Your task to perform on an android device: Show me popular videos on Youtube Image 0: 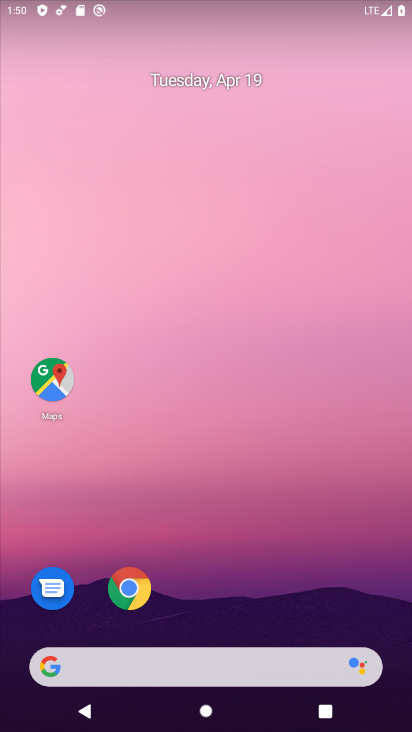
Step 0: drag from (272, 623) to (307, 92)
Your task to perform on an android device: Show me popular videos on Youtube Image 1: 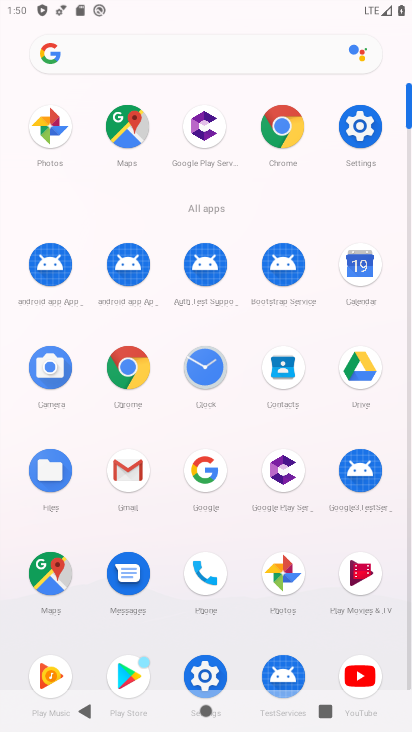
Step 1: drag from (343, 650) to (344, 449)
Your task to perform on an android device: Show me popular videos on Youtube Image 2: 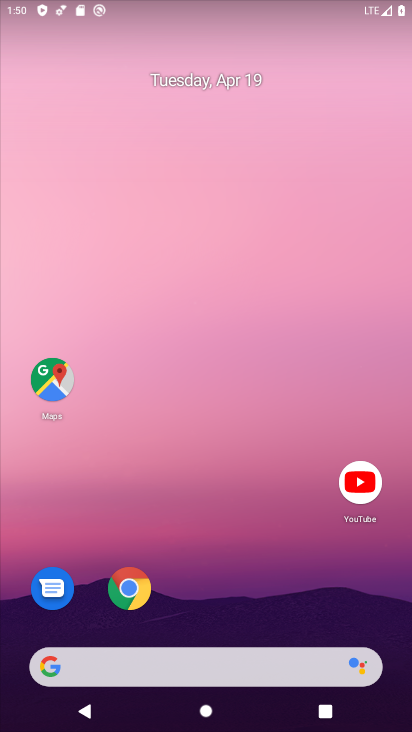
Step 2: click (354, 480)
Your task to perform on an android device: Show me popular videos on Youtube Image 3: 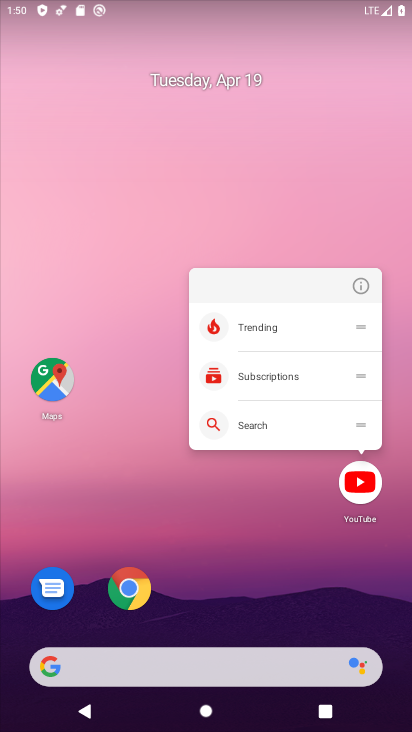
Step 3: click (366, 492)
Your task to perform on an android device: Show me popular videos on Youtube Image 4: 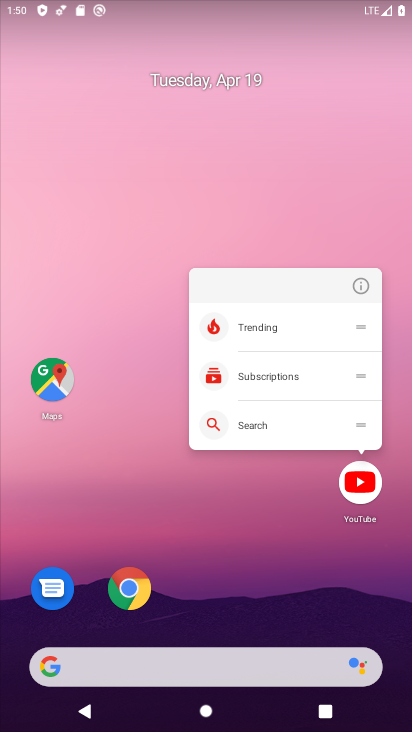
Step 4: click (366, 492)
Your task to perform on an android device: Show me popular videos on Youtube Image 5: 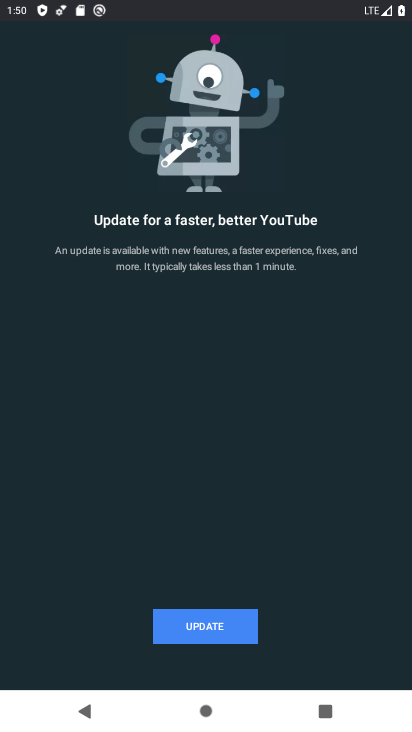
Step 5: click (192, 627)
Your task to perform on an android device: Show me popular videos on Youtube Image 6: 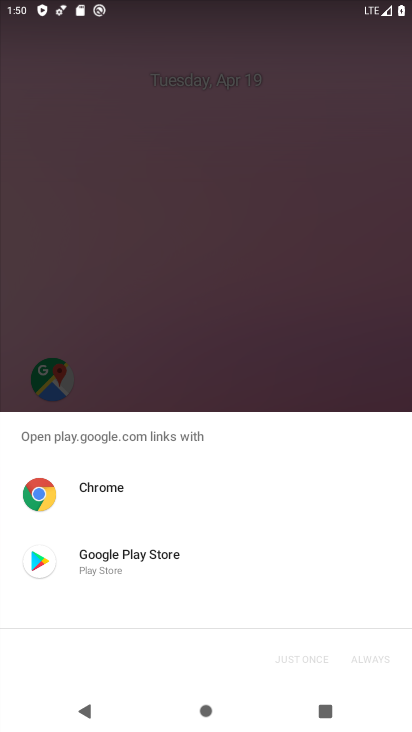
Step 6: click (161, 572)
Your task to perform on an android device: Show me popular videos on Youtube Image 7: 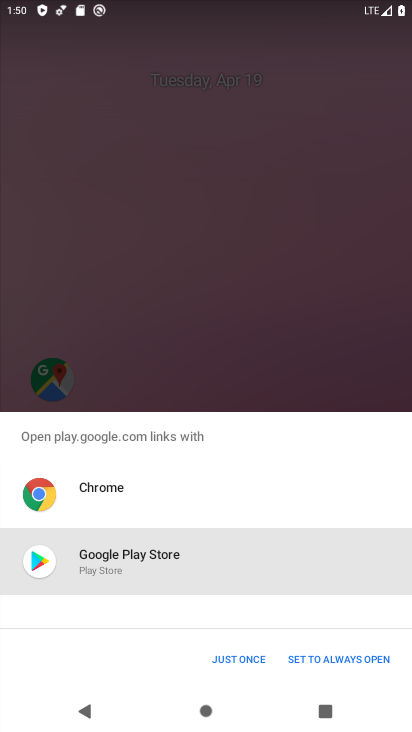
Step 7: click (244, 661)
Your task to perform on an android device: Show me popular videos on Youtube Image 8: 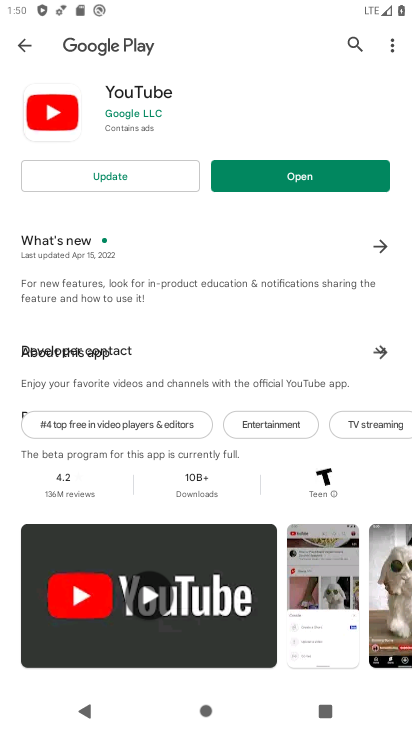
Step 8: click (129, 177)
Your task to perform on an android device: Show me popular videos on Youtube Image 9: 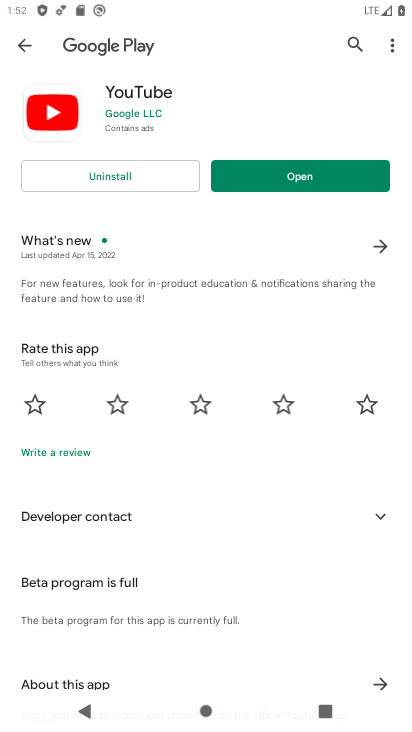
Step 9: click (299, 179)
Your task to perform on an android device: Show me popular videos on Youtube Image 10: 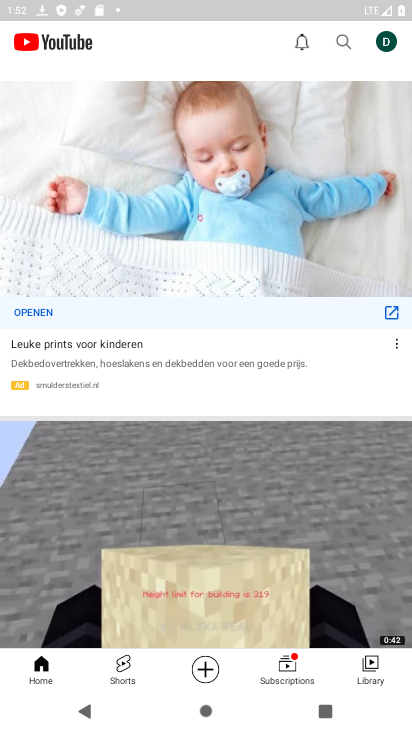
Step 10: click (376, 680)
Your task to perform on an android device: Show me popular videos on Youtube Image 11: 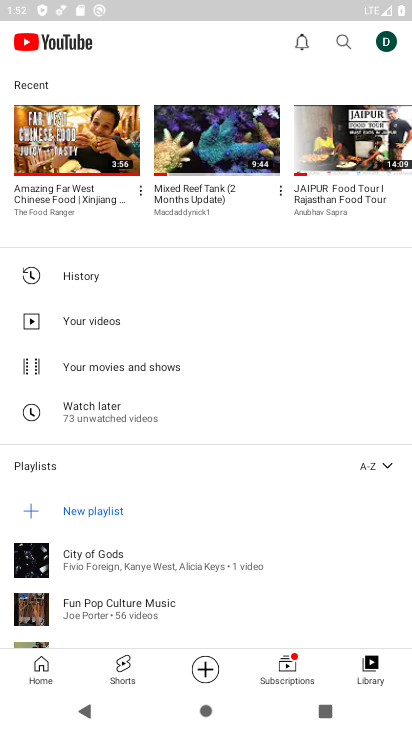
Step 11: click (46, 672)
Your task to perform on an android device: Show me popular videos on Youtube Image 12: 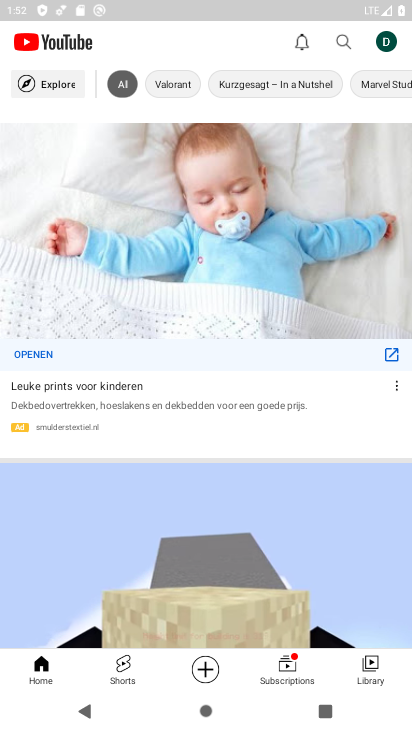
Step 12: task complete